Your task to perform on an android device: uninstall "Microsoft Outlook" Image 0: 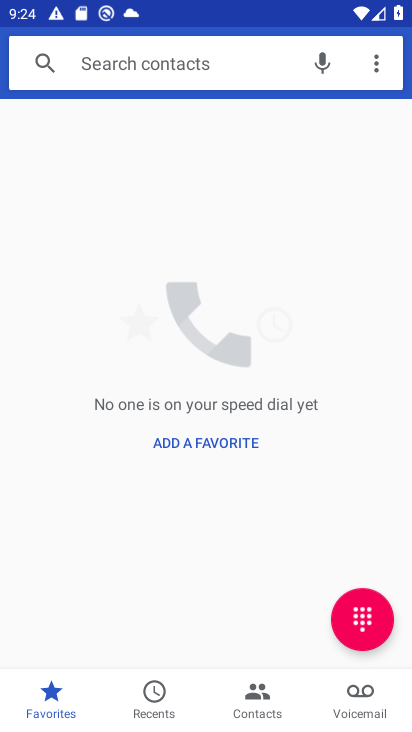
Step 0: press home button
Your task to perform on an android device: uninstall "Microsoft Outlook" Image 1: 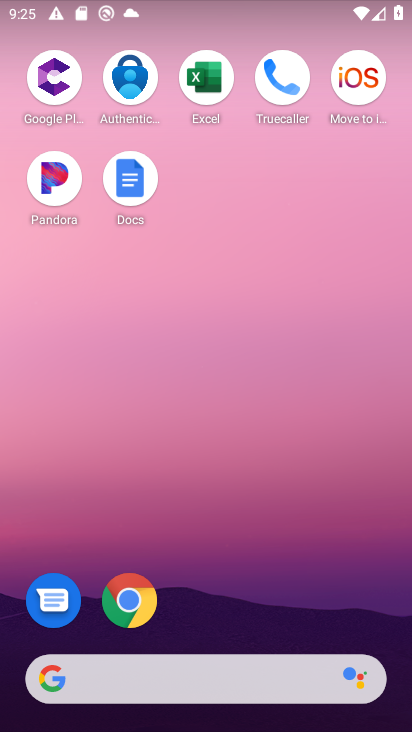
Step 1: drag from (221, 591) to (228, 139)
Your task to perform on an android device: uninstall "Microsoft Outlook" Image 2: 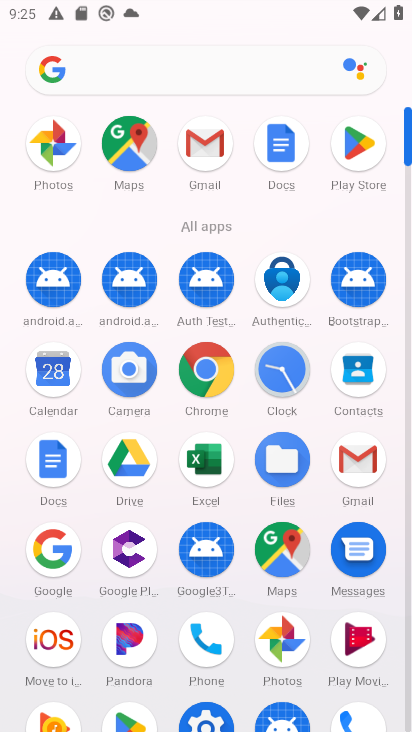
Step 2: drag from (316, 589) to (314, 518)
Your task to perform on an android device: uninstall "Microsoft Outlook" Image 3: 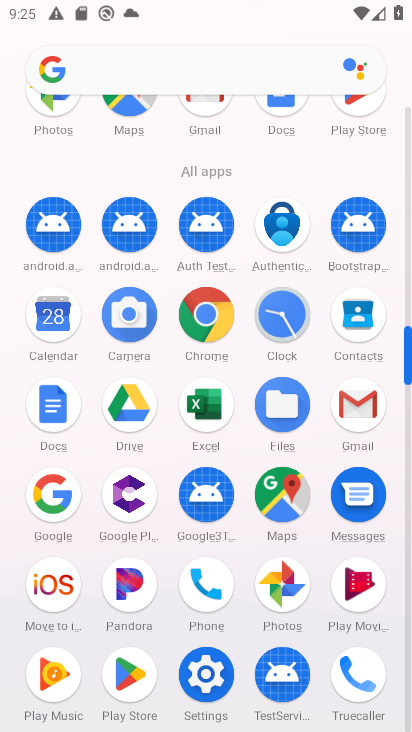
Step 3: click (140, 680)
Your task to perform on an android device: uninstall "Microsoft Outlook" Image 4: 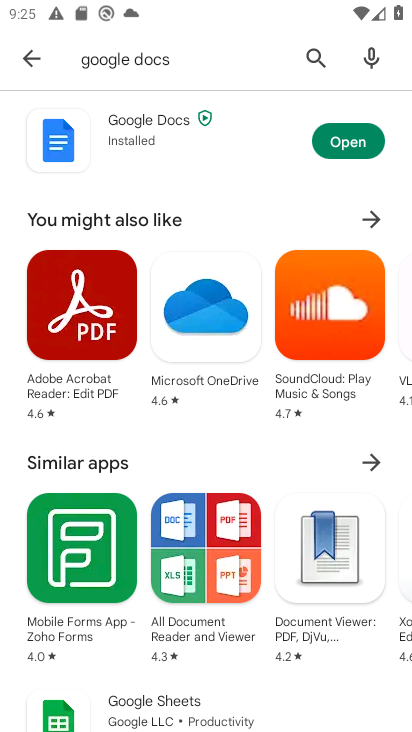
Step 4: click (307, 60)
Your task to perform on an android device: uninstall "Microsoft Outlook" Image 5: 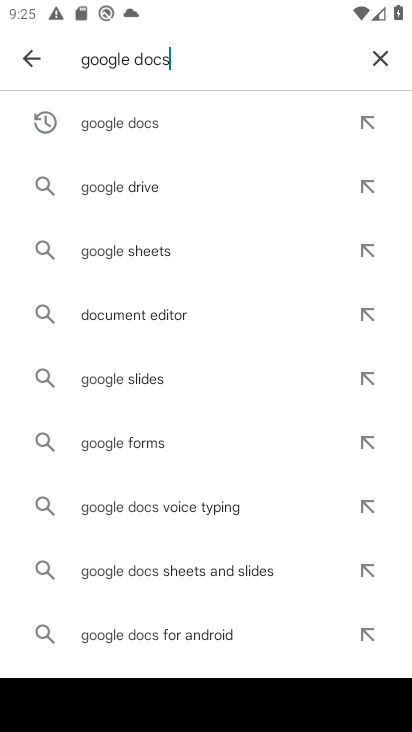
Step 5: click (387, 60)
Your task to perform on an android device: uninstall "Microsoft Outlook" Image 6: 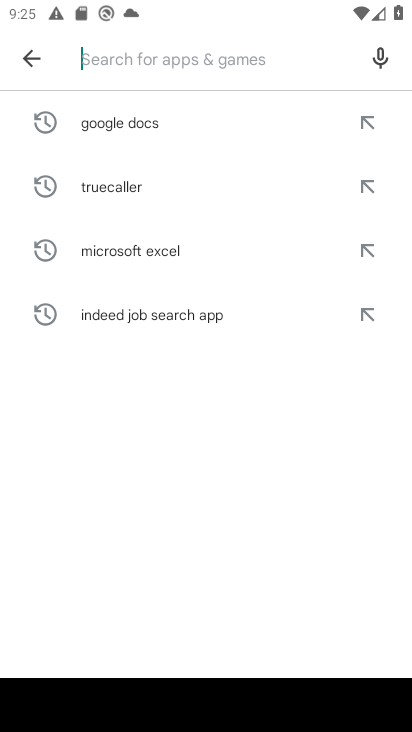
Step 6: click (265, 77)
Your task to perform on an android device: uninstall "Microsoft Outlook" Image 7: 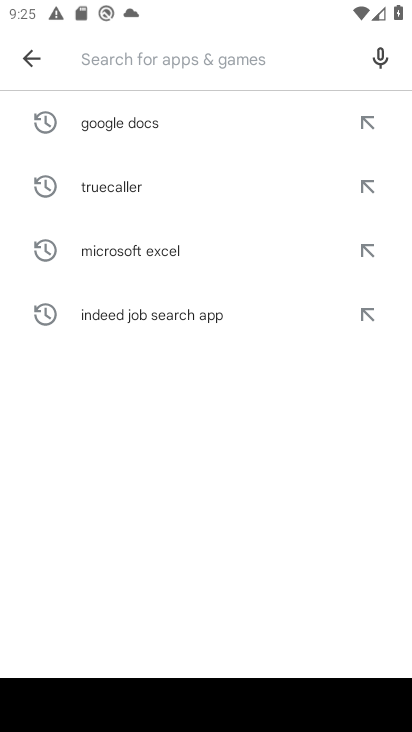
Step 7: type "Microsoft Outlook"
Your task to perform on an android device: uninstall "Microsoft Outlook" Image 8: 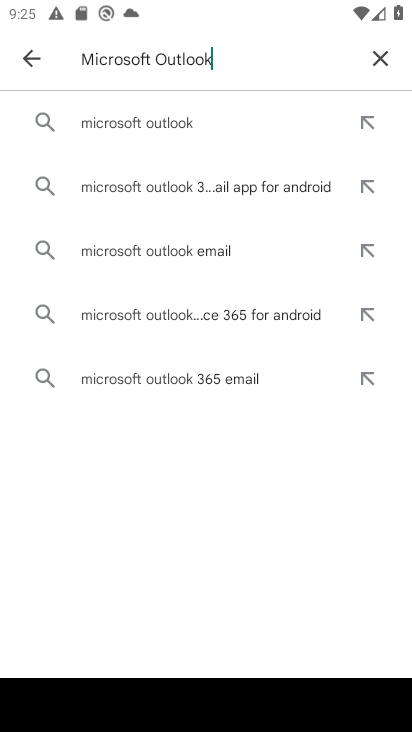
Step 8: click (169, 136)
Your task to perform on an android device: uninstall "Microsoft Outlook" Image 9: 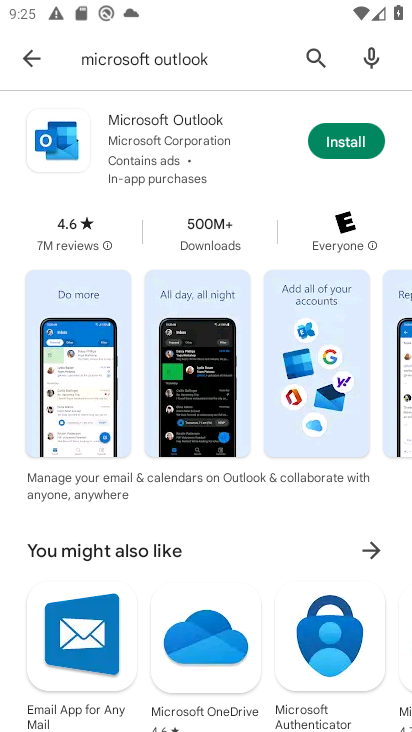
Step 9: task complete